Your task to perform on an android device: Open Maps and search for coffee Image 0: 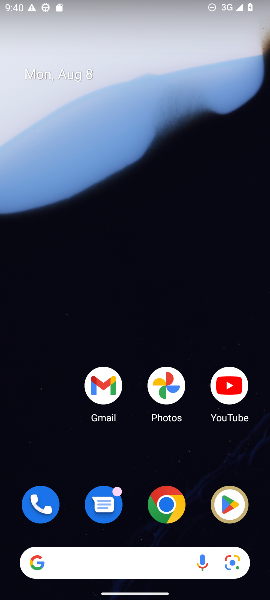
Step 0: drag from (115, 415) to (123, 3)
Your task to perform on an android device: Open Maps and search for coffee Image 1: 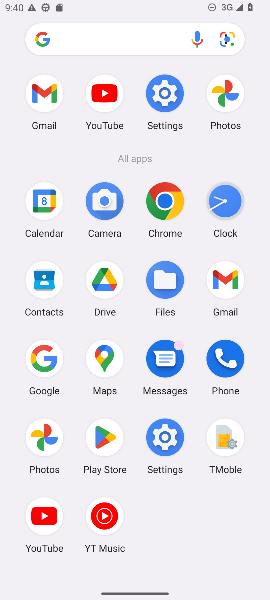
Step 1: click (102, 369)
Your task to perform on an android device: Open Maps and search for coffee Image 2: 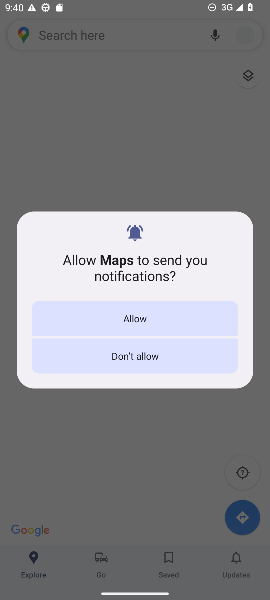
Step 2: click (122, 318)
Your task to perform on an android device: Open Maps and search for coffee Image 3: 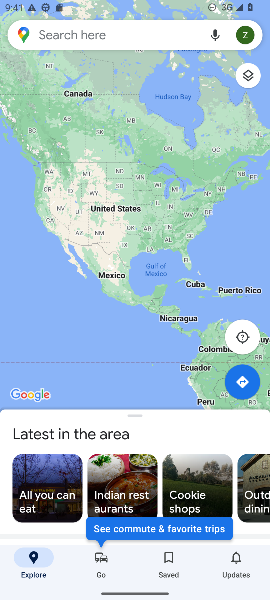
Step 3: click (114, 39)
Your task to perform on an android device: Open Maps and search for coffee Image 4: 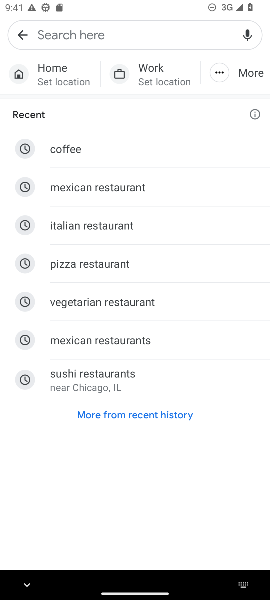
Step 4: type "coffee"
Your task to perform on an android device: Open Maps and search for coffee Image 5: 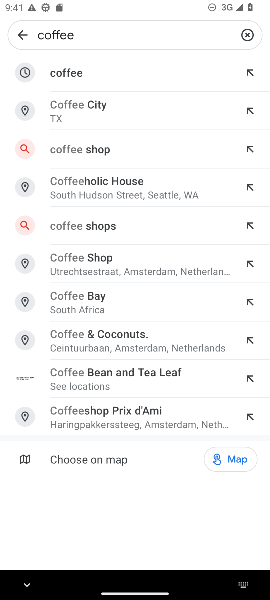
Step 5: click (160, 65)
Your task to perform on an android device: Open Maps and search for coffee Image 6: 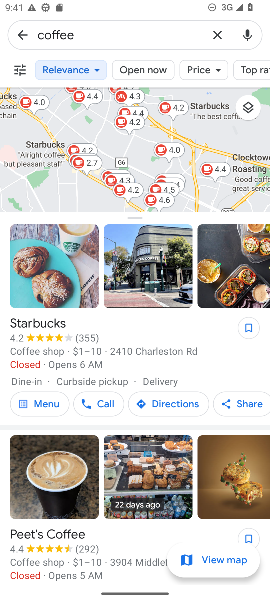
Step 6: task complete